Your task to perform on an android device: check google app version Image 0: 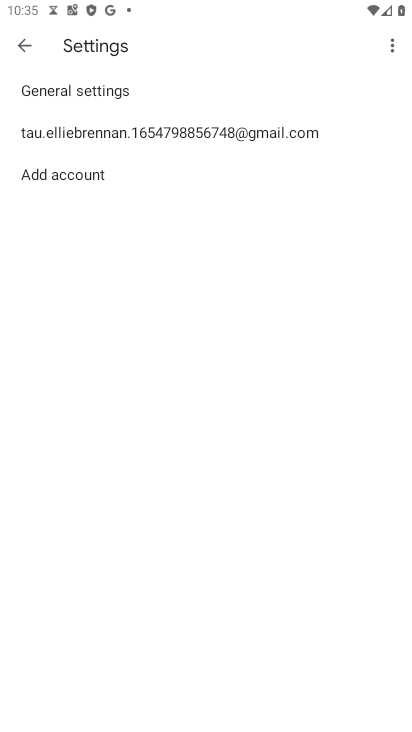
Step 0: press home button
Your task to perform on an android device: check google app version Image 1: 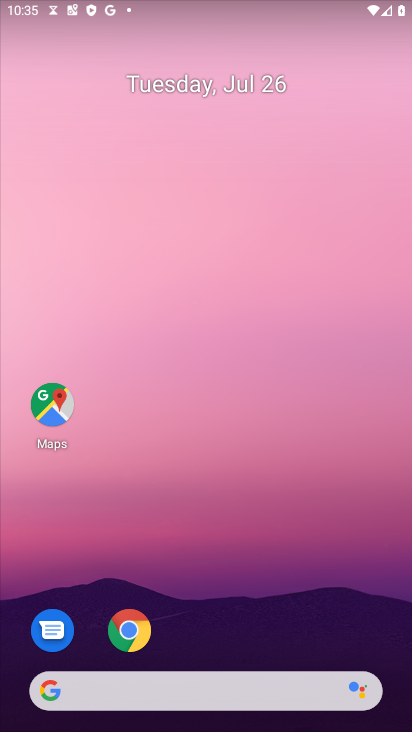
Step 1: drag from (196, 683) to (351, 351)
Your task to perform on an android device: check google app version Image 2: 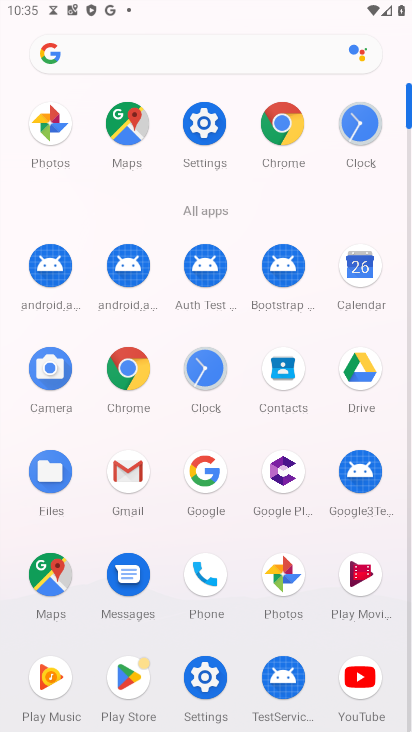
Step 2: click (205, 471)
Your task to perform on an android device: check google app version Image 3: 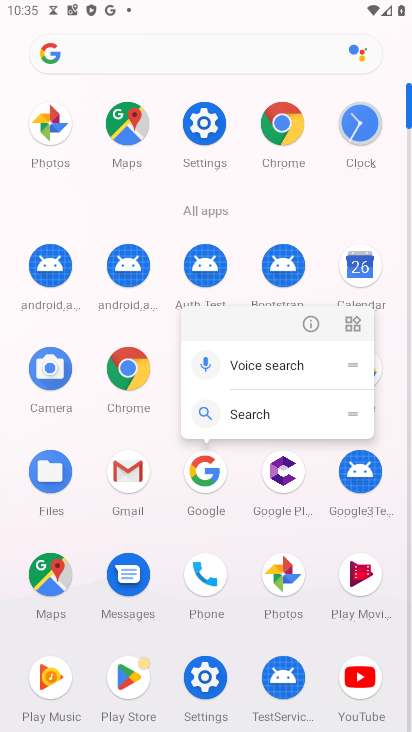
Step 3: click (307, 324)
Your task to perform on an android device: check google app version Image 4: 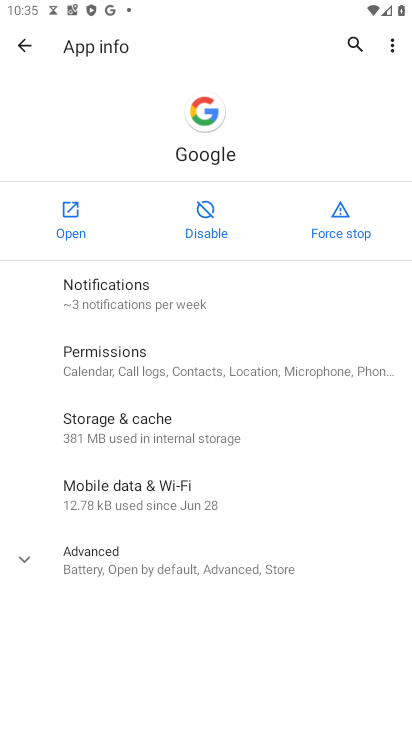
Step 4: click (119, 568)
Your task to perform on an android device: check google app version Image 5: 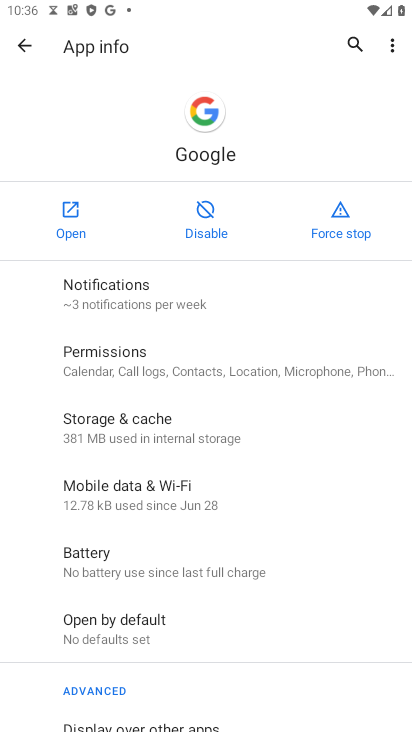
Step 5: task complete